Your task to perform on an android device: Find the nearest grocery store Image 0: 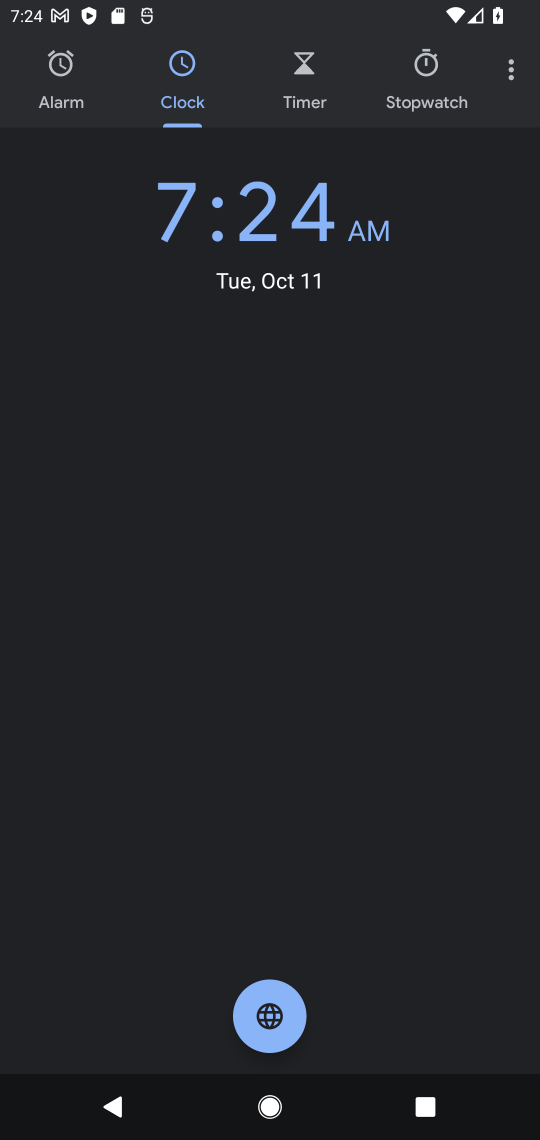
Step 0: press home button
Your task to perform on an android device: Find the nearest grocery store Image 1: 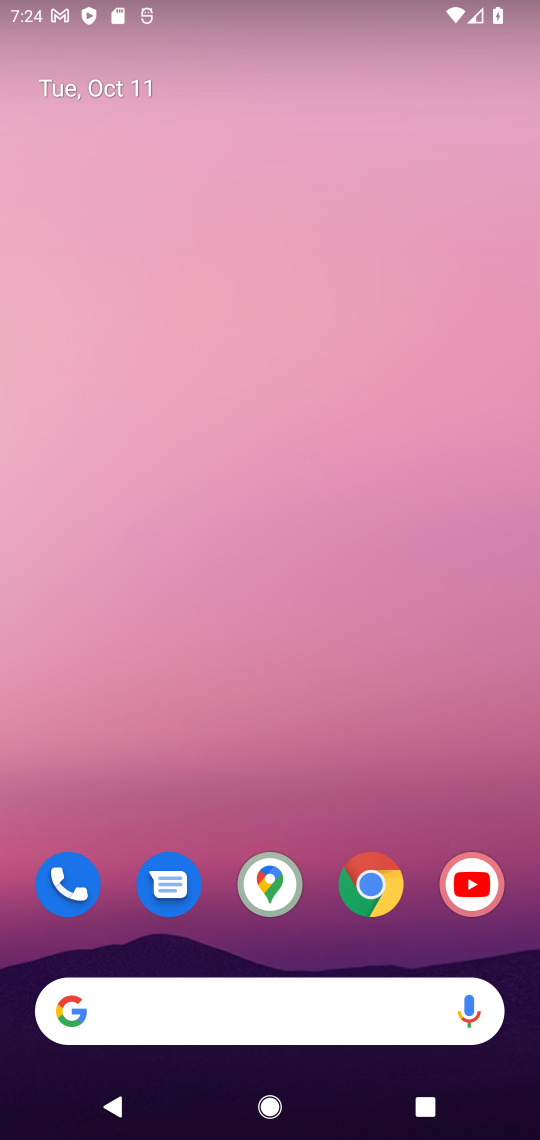
Step 1: drag from (318, 833) to (254, 51)
Your task to perform on an android device: Find the nearest grocery store Image 2: 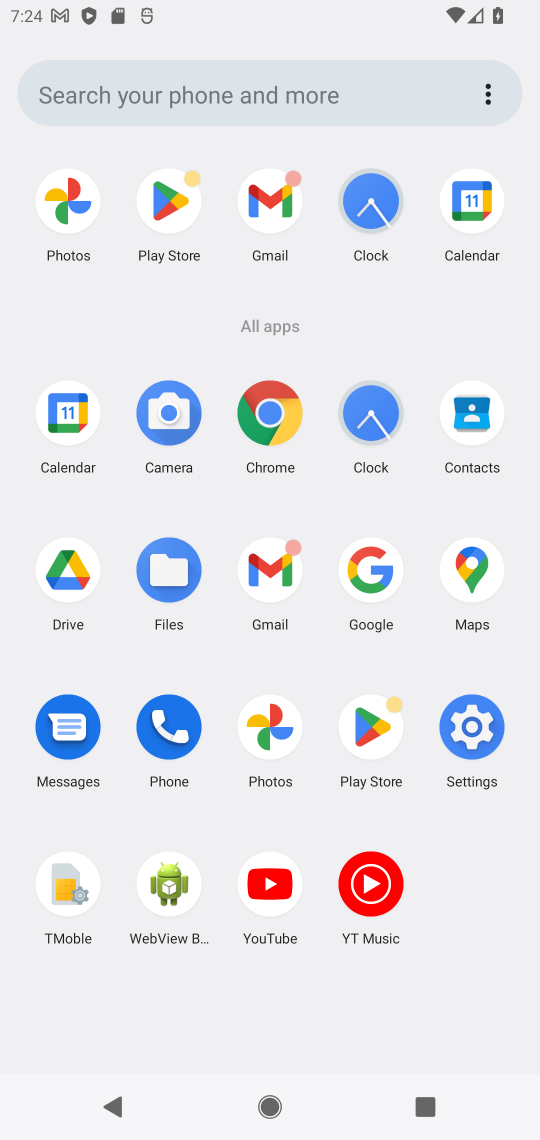
Step 2: click (287, 399)
Your task to perform on an android device: Find the nearest grocery store Image 3: 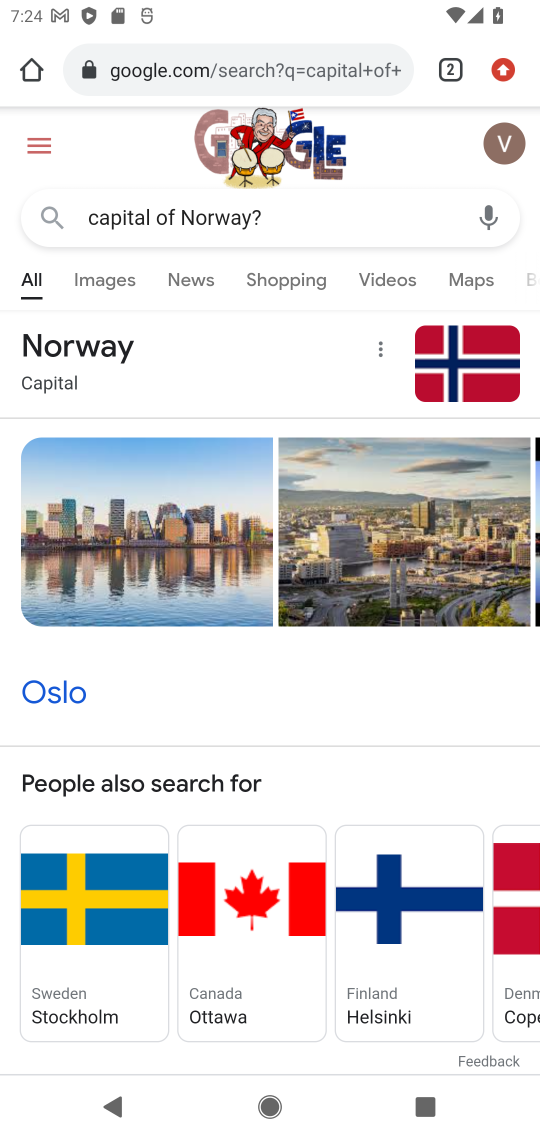
Step 3: click (357, 82)
Your task to perform on an android device: Find the nearest grocery store Image 4: 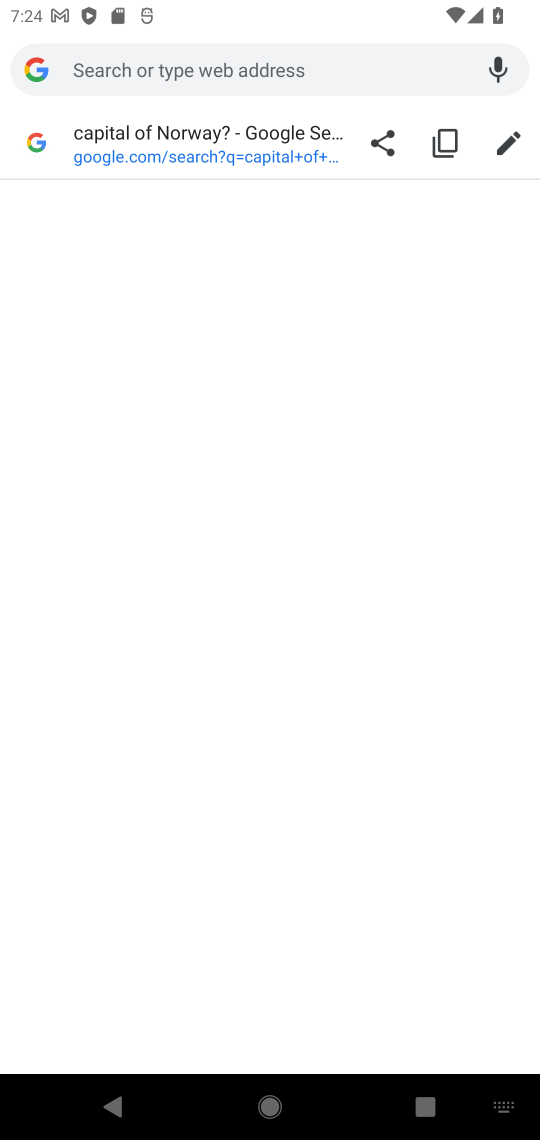
Step 4: type "nearest grocery store"
Your task to perform on an android device: Find the nearest grocery store Image 5: 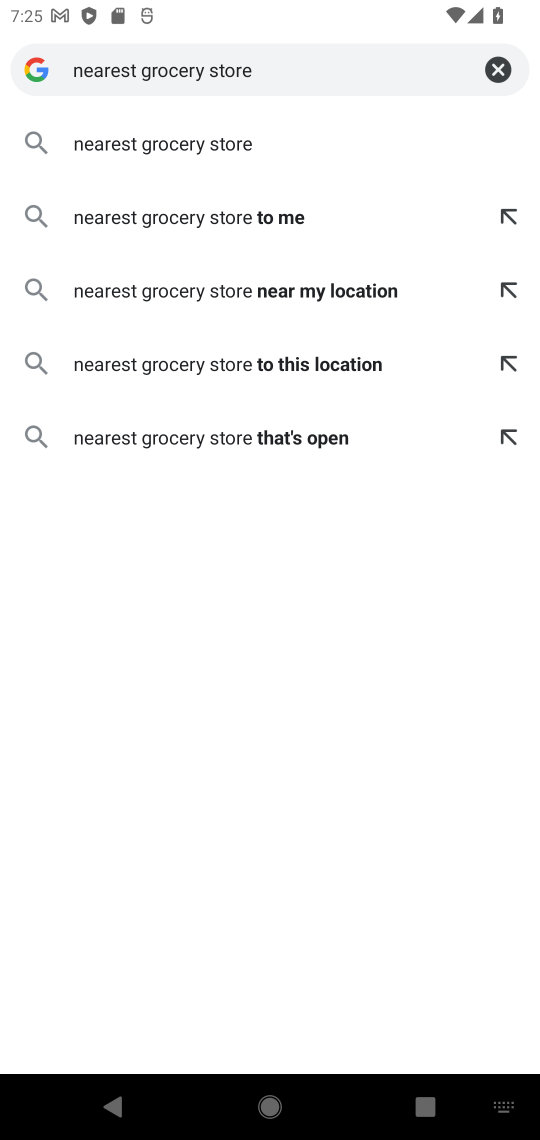
Step 5: click (290, 145)
Your task to perform on an android device: Find the nearest grocery store Image 6: 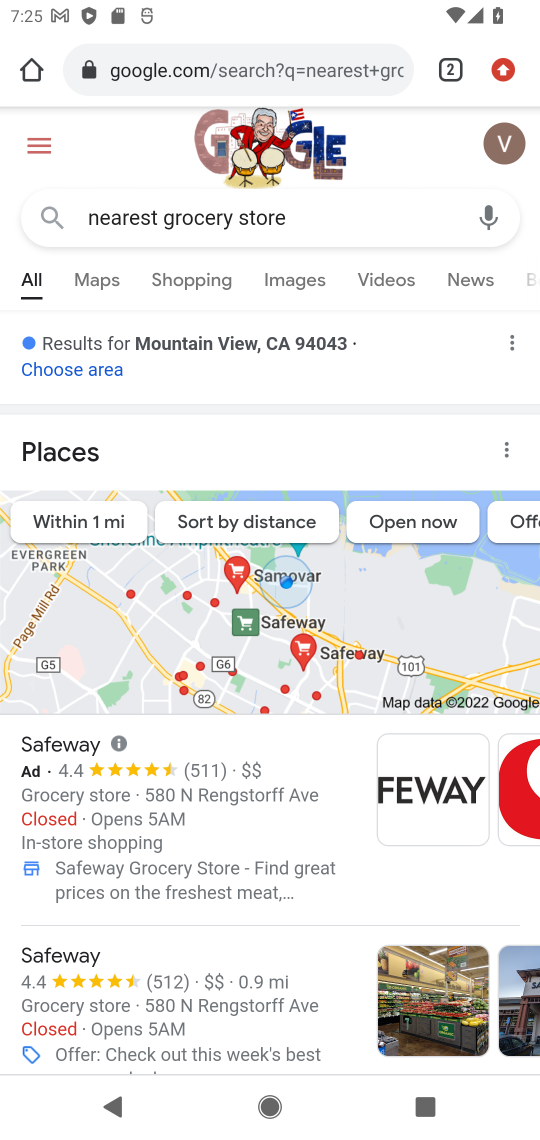
Step 6: task complete